Your task to perform on an android device: turn on wifi Image 0: 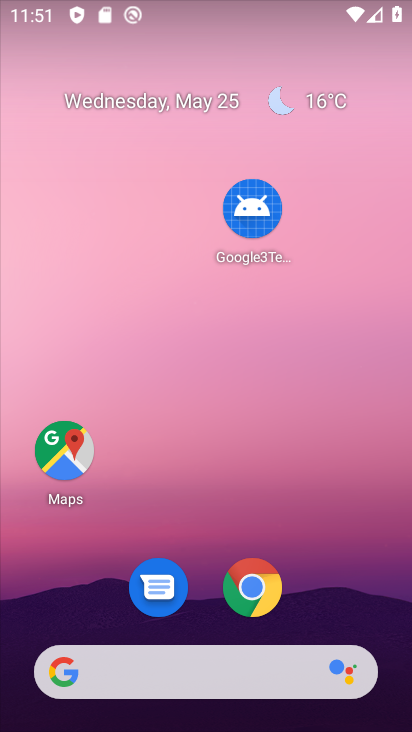
Step 0: click (246, 192)
Your task to perform on an android device: turn on wifi Image 1: 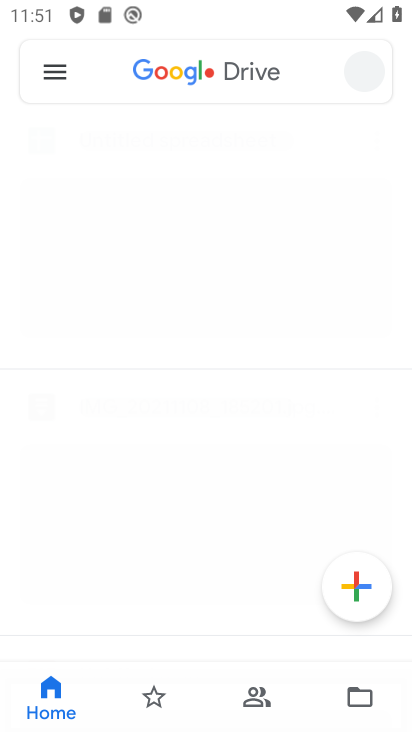
Step 1: press home button
Your task to perform on an android device: turn on wifi Image 2: 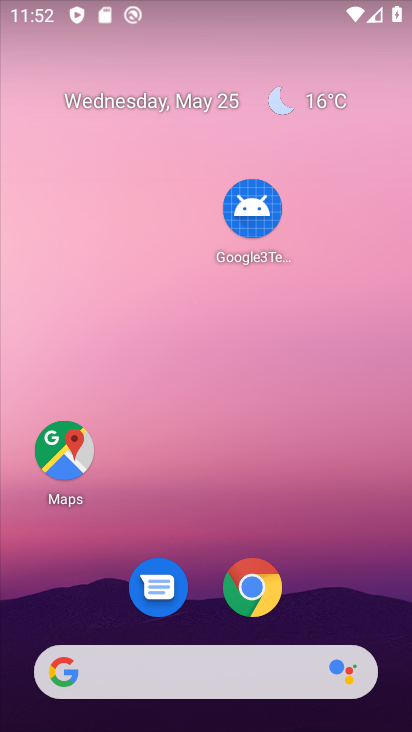
Step 2: drag from (243, 657) to (262, 132)
Your task to perform on an android device: turn on wifi Image 3: 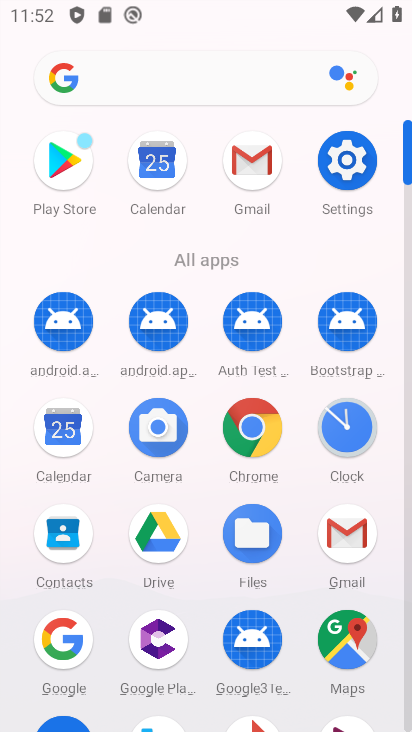
Step 3: click (350, 131)
Your task to perform on an android device: turn on wifi Image 4: 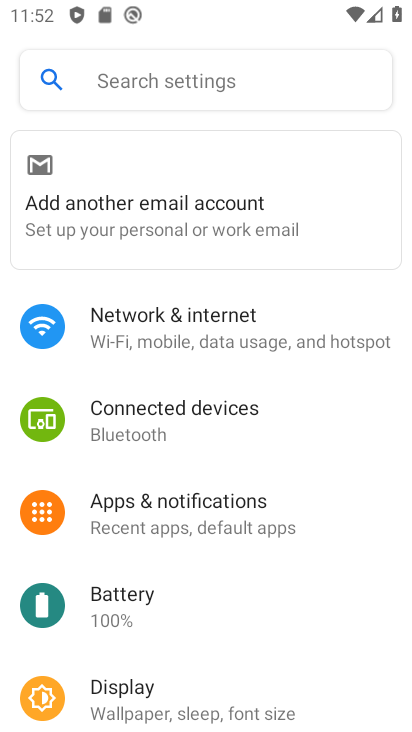
Step 4: click (348, 155)
Your task to perform on an android device: turn on wifi Image 5: 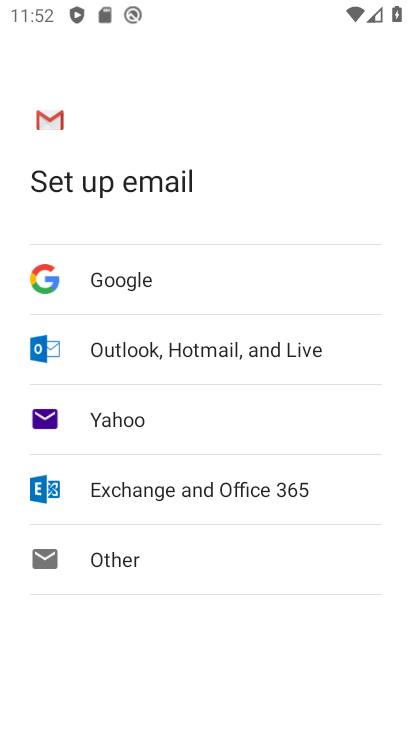
Step 5: press home button
Your task to perform on an android device: turn on wifi Image 6: 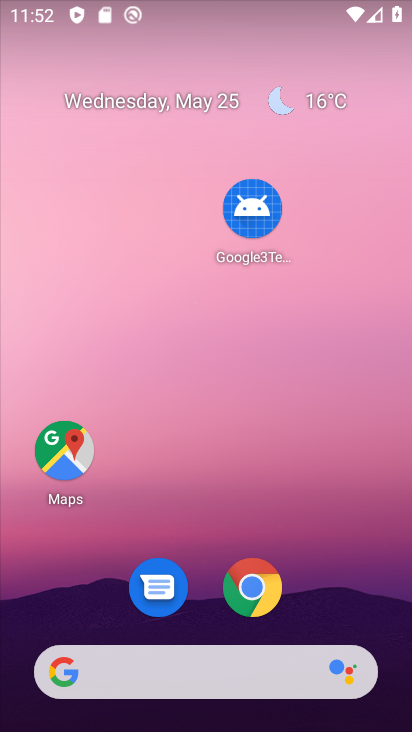
Step 6: drag from (167, 676) to (235, 198)
Your task to perform on an android device: turn on wifi Image 7: 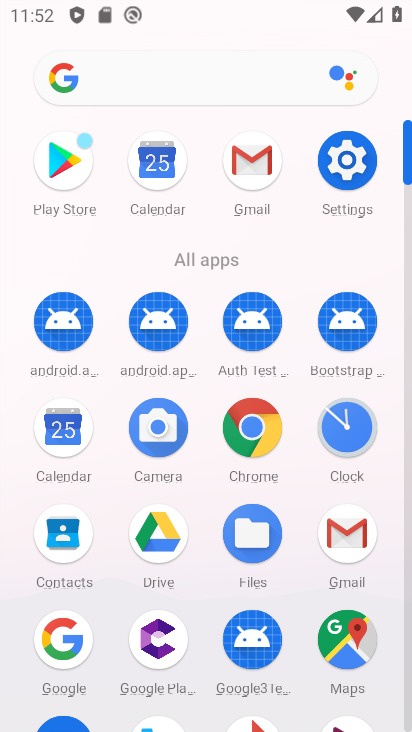
Step 7: click (368, 157)
Your task to perform on an android device: turn on wifi Image 8: 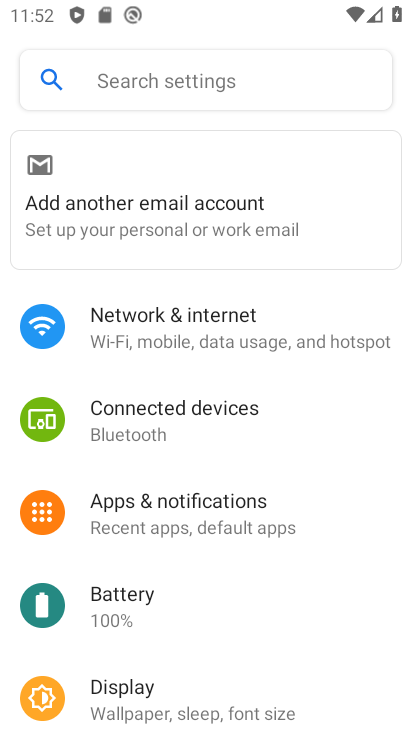
Step 8: click (174, 329)
Your task to perform on an android device: turn on wifi Image 9: 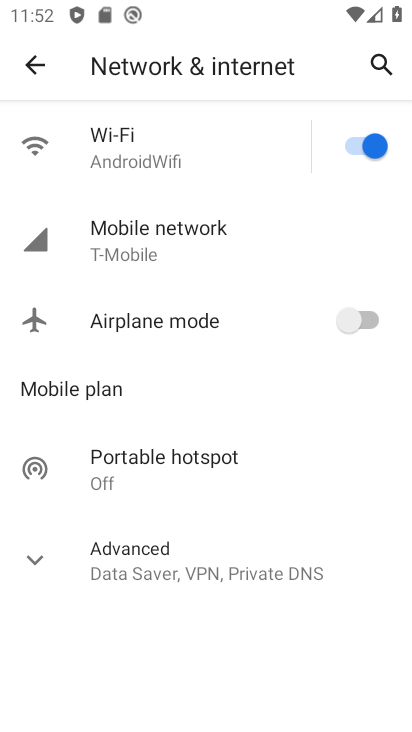
Step 9: task complete